Your task to perform on an android device: What's the weather going to be tomorrow? Image 0: 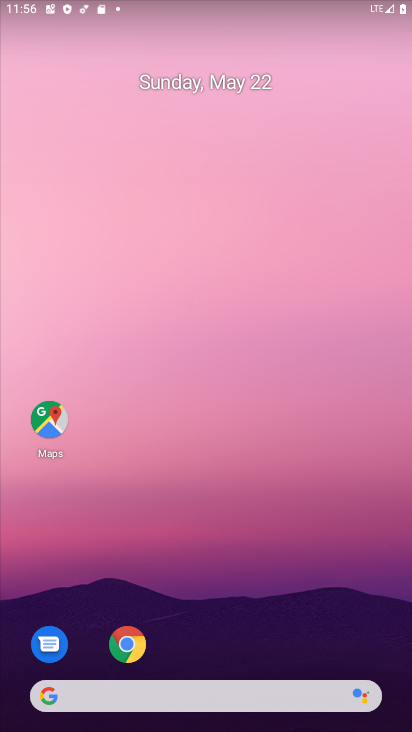
Step 0: drag from (338, 146) to (327, 106)
Your task to perform on an android device: What's the weather going to be tomorrow? Image 1: 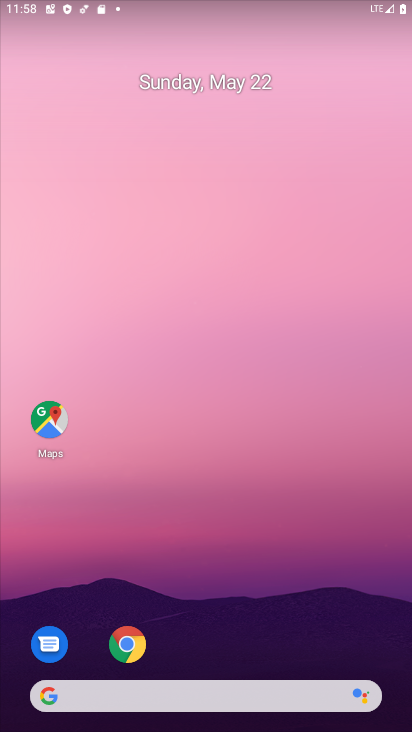
Step 1: drag from (311, 635) to (314, 44)
Your task to perform on an android device: What's the weather going to be tomorrow? Image 2: 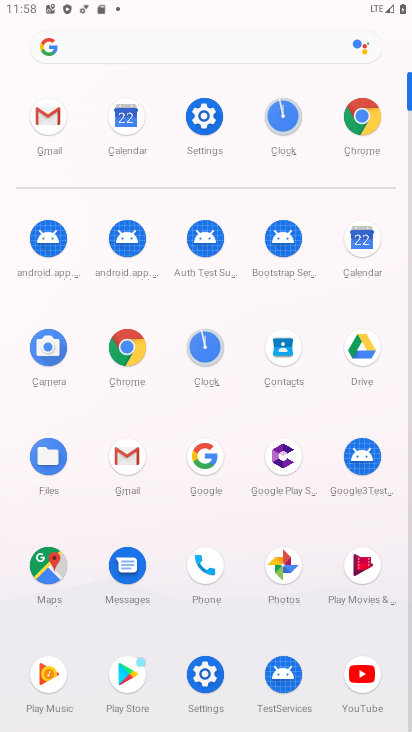
Step 2: click (204, 448)
Your task to perform on an android device: What's the weather going to be tomorrow? Image 3: 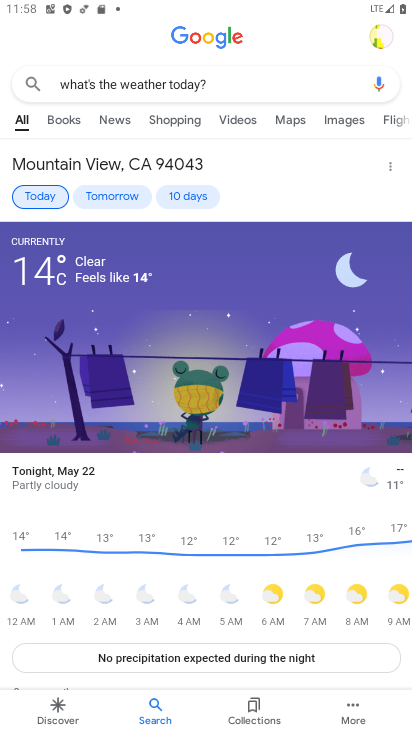
Step 3: press back button
Your task to perform on an android device: What's the weather going to be tomorrow? Image 4: 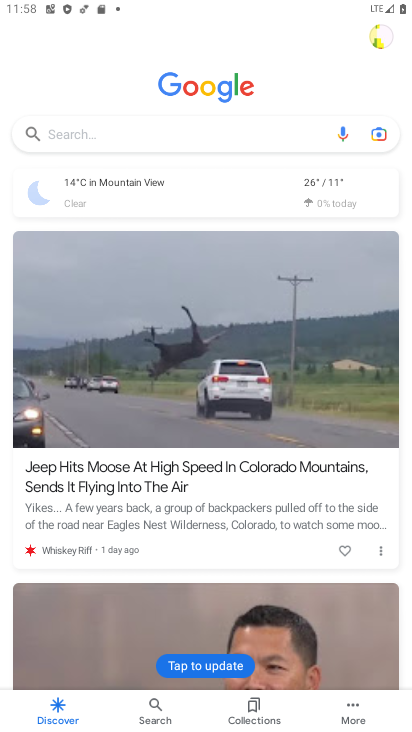
Step 4: click (132, 131)
Your task to perform on an android device: What's the weather going to be tomorrow? Image 5: 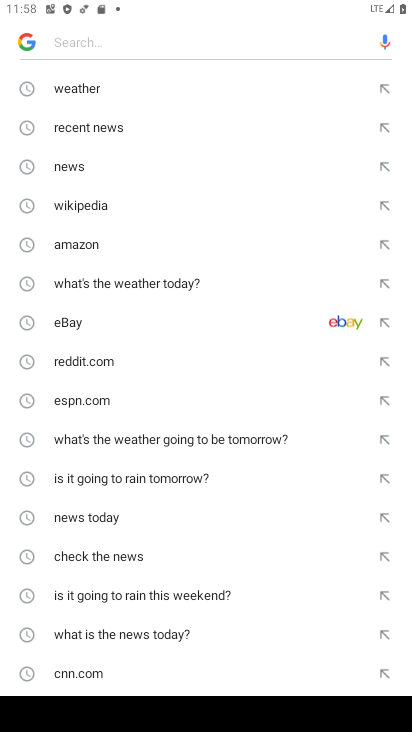
Step 5: click (249, 435)
Your task to perform on an android device: What's the weather going to be tomorrow? Image 6: 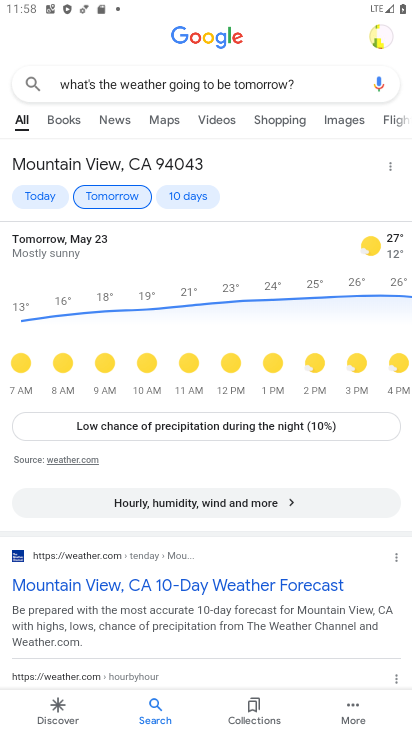
Step 6: task complete